Your task to perform on an android device: open app "Fetch Rewards" (install if not already installed) and go to login screen Image 0: 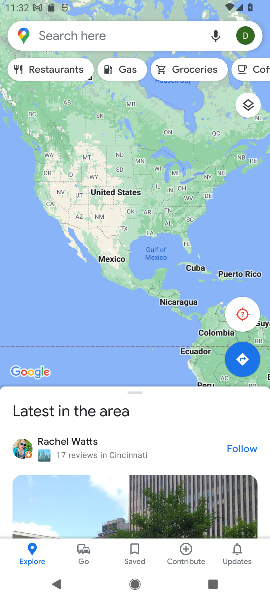
Step 0: press home button
Your task to perform on an android device: open app "Fetch Rewards" (install if not already installed) and go to login screen Image 1: 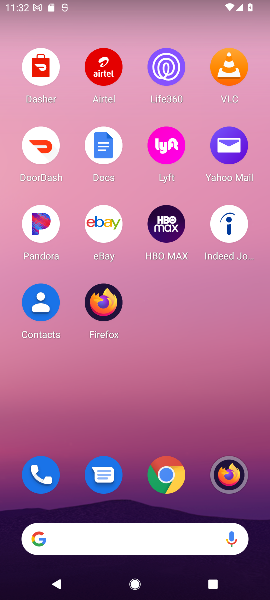
Step 1: drag from (124, 433) to (93, 0)
Your task to perform on an android device: open app "Fetch Rewards" (install if not already installed) and go to login screen Image 2: 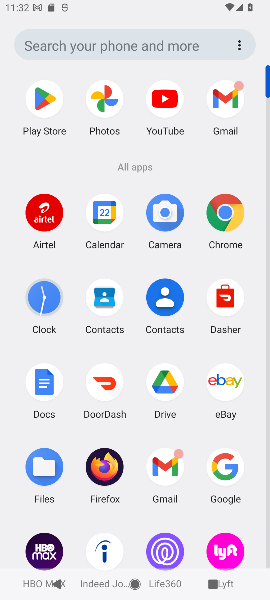
Step 2: click (47, 89)
Your task to perform on an android device: open app "Fetch Rewards" (install if not already installed) and go to login screen Image 3: 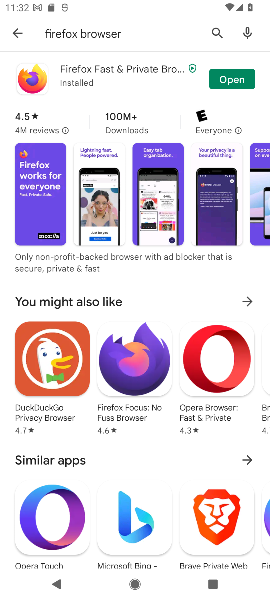
Step 3: click (12, 35)
Your task to perform on an android device: open app "Fetch Rewards" (install if not already installed) and go to login screen Image 4: 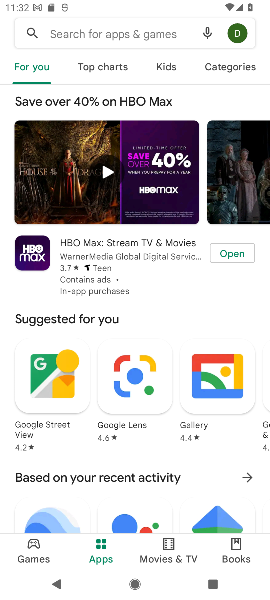
Step 4: click (84, 35)
Your task to perform on an android device: open app "Fetch Rewards" (install if not already installed) and go to login screen Image 5: 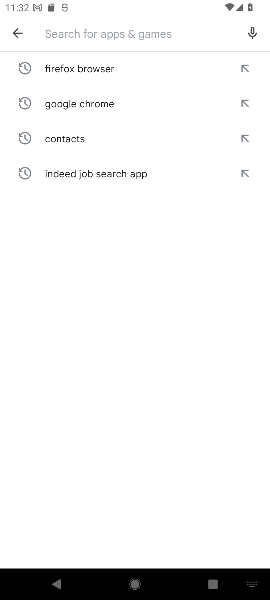
Step 5: type "Fetch Rewards"
Your task to perform on an android device: open app "Fetch Rewards" (install if not already installed) and go to login screen Image 6: 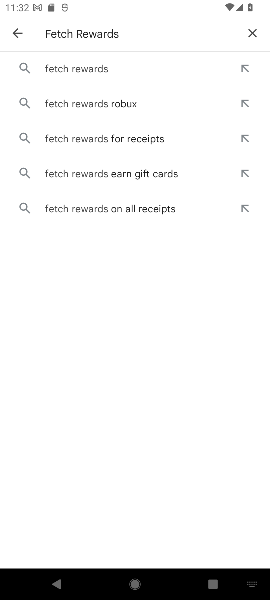
Step 6: click (68, 69)
Your task to perform on an android device: open app "Fetch Rewards" (install if not already installed) and go to login screen Image 7: 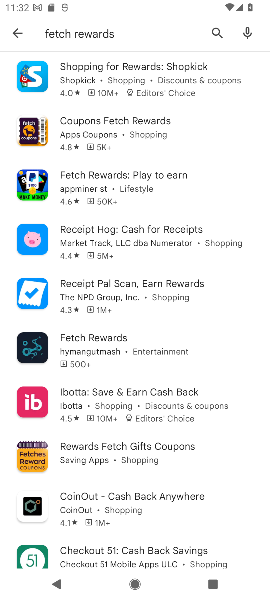
Step 7: click (78, 185)
Your task to perform on an android device: open app "Fetch Rewards" (install if not already installed) and go to login screen Image 8: 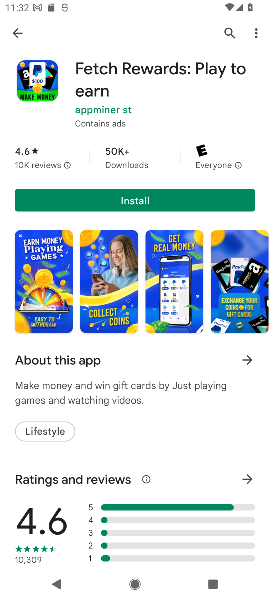
Step 8: click (133, 205)
Your task to perform on an android device: open app "Fetch Rewards" (install if not already installed) and go to login screen Image 9: 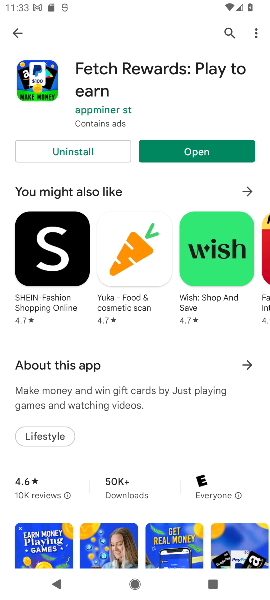
Step 9: click (176, 148)
Your task to perform on an android device: open app "Fetch Rewards" (install if not already installed) and go to login screen Image 10: 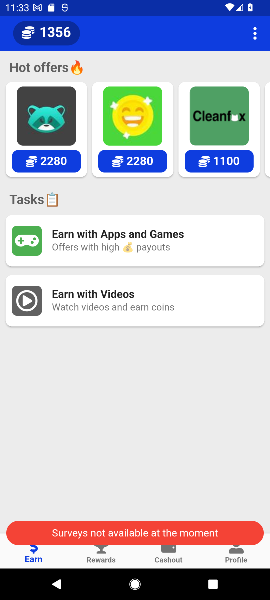
Step 10: task complete